Your task to perform on an android device: turn off smart reply in the gmail app Image 0: 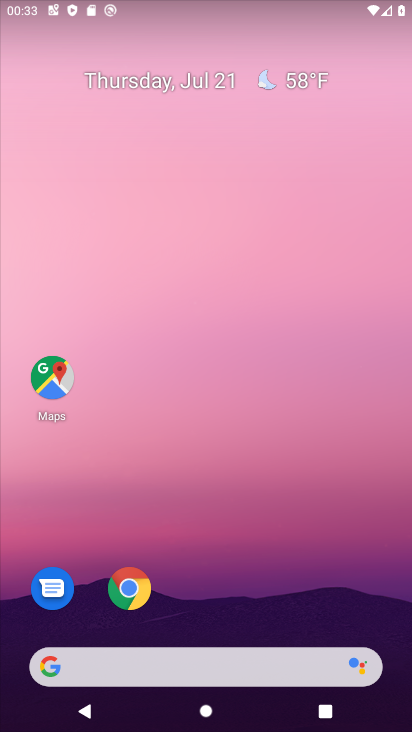
Step 0: drag from (223, 638) to (217, 144)
Your task to perform on an android device: turn off smart reply in the gmail app Image 1: 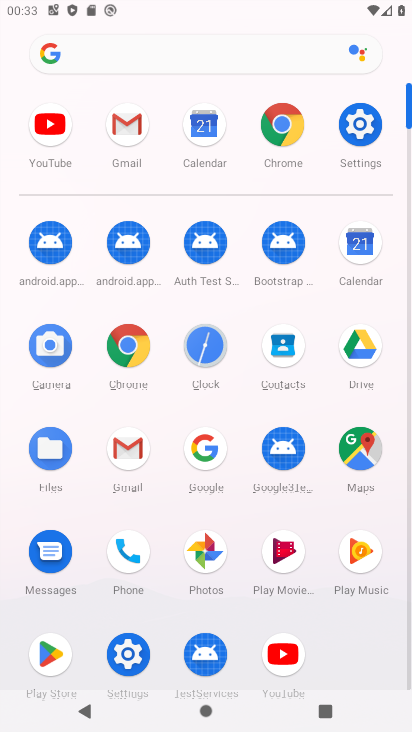
Step 1: click (127, 459)
Your task to perform on an android device: turn off smart reply in the gmail app Image 2: 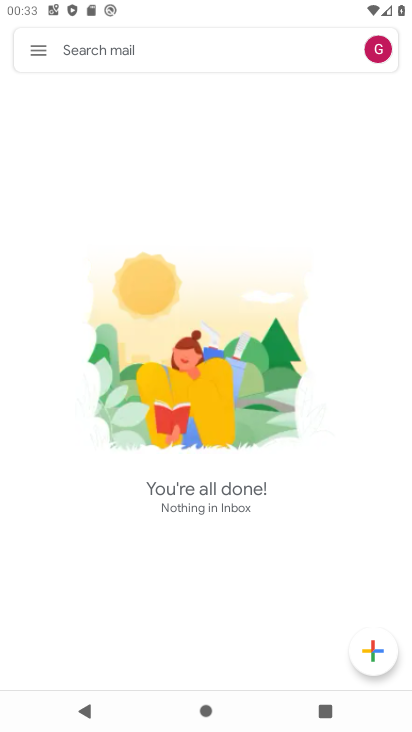
Step 2: click (33, 49)
Your task to perform on an android device: turn off smart reply in the gmail app Image 3: 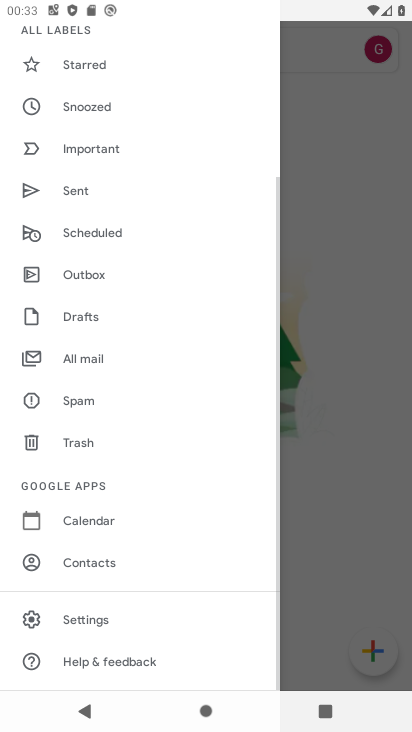
Step 3: drag from (112, 602) to (133, 442)
Your task to perform on an android device: turn off smart reply in the gmail app Image 4: 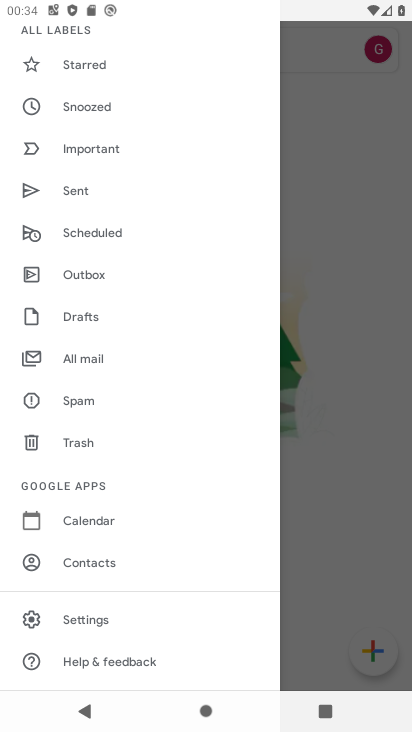
Step 4: click (75, 621)
Your task to perform on an android device: turn off smart reply in the gmail app Image 5: 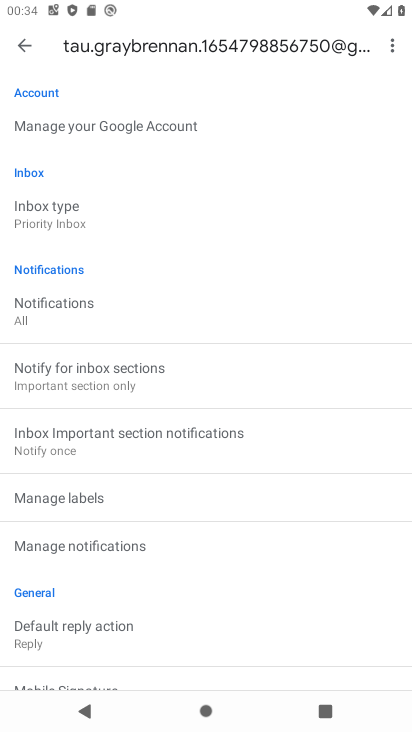
Step 5: drag from (153, 490) to (156, 302)
Your task to perform on an android device: turn off smart reply in the gmail app Image 6: 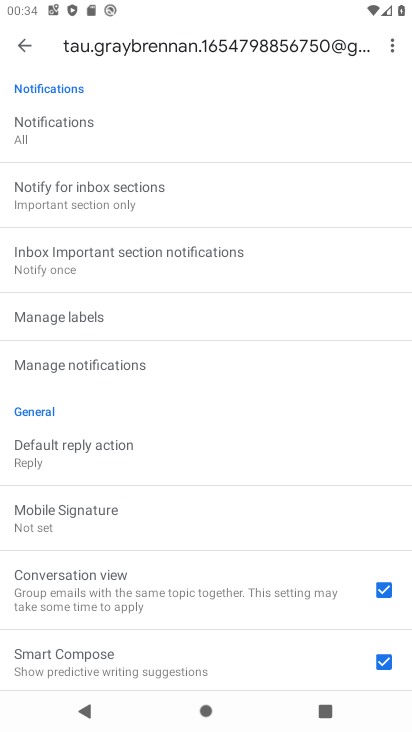
Step 6: drag from (169, 263) to (181, 519)
Your task to perform on an android device: turn off smart reply in the gmail app Image 7: 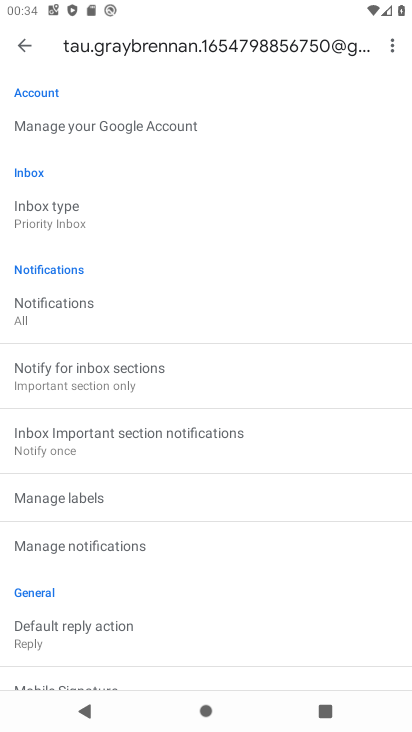
Step 7: drag from (119, 562) to (146, 305)
Your task to perform on an android device: turn off smart reply in the gmail app Image 8: 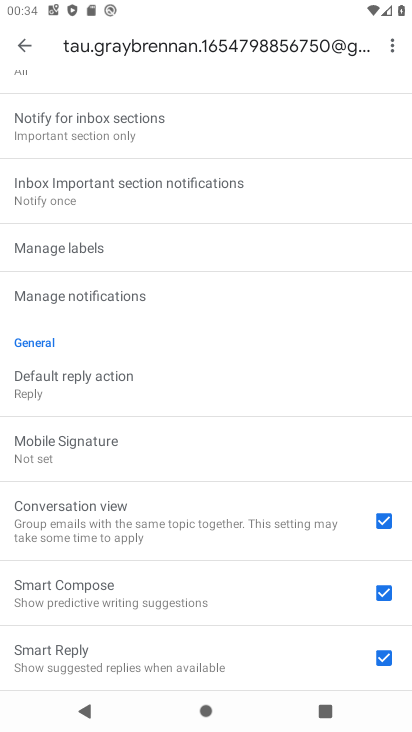
Step 8: drag from (205, 642) to (210, 432)
Your task to perform on an android device: turn off smart reply in the gmail app Image 9: 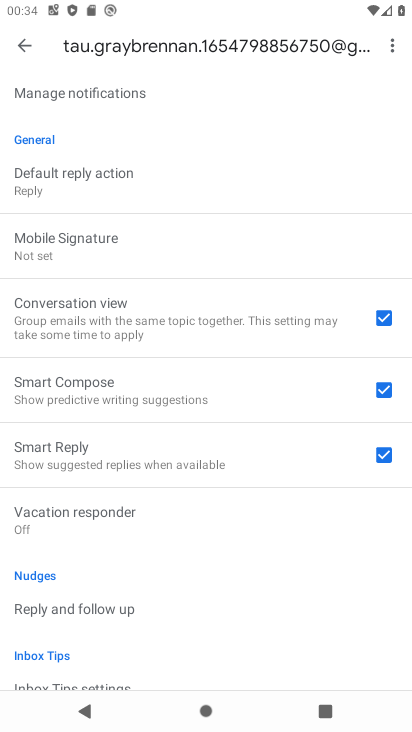
Step 9: click (374, 452)
Your task to perform on an android device: turn off smart reply in the gmail app Image 10: 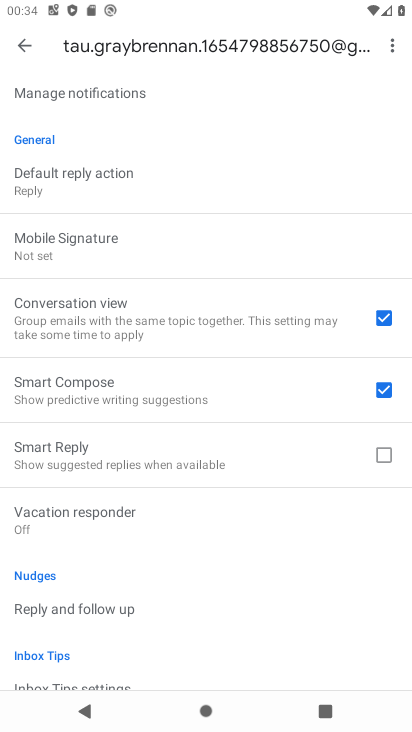
Step 10: task complete